Your task to perform on an android device: set default search engine in the chrome app Image 0: 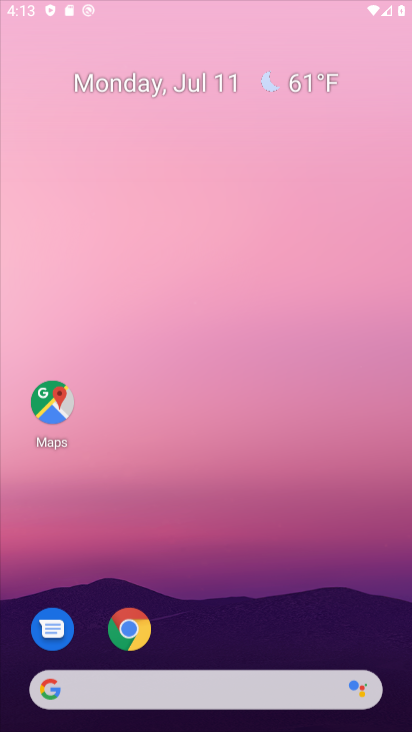
Step 0: click (344, 14)
Your task to perform on an android device: set default search engine in the chrome app Image 1: 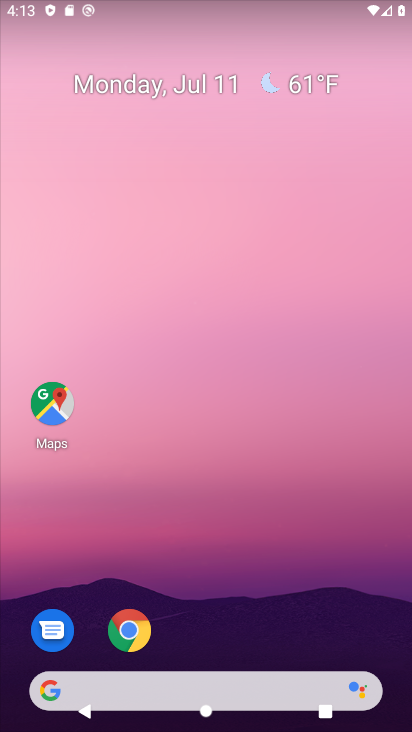
Step 1: drag from (343, 455) to (333, 3)
Your task to perform on an android device: set default search engine in the chrome app Image 2: 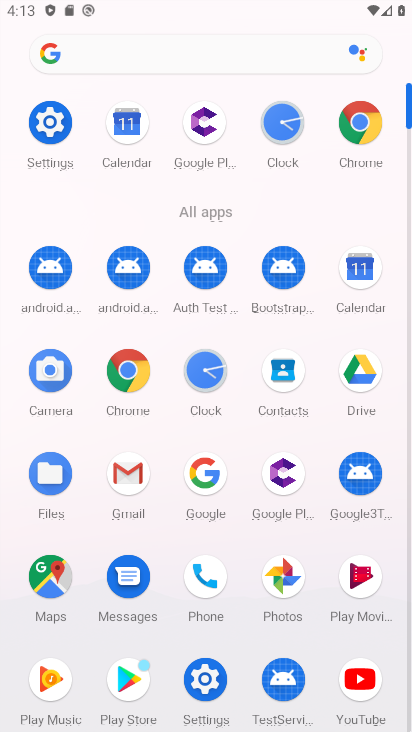
Step 2: click (360, 127)
Your task to perform on an android device: set default search engine in the chrome app Image 3: 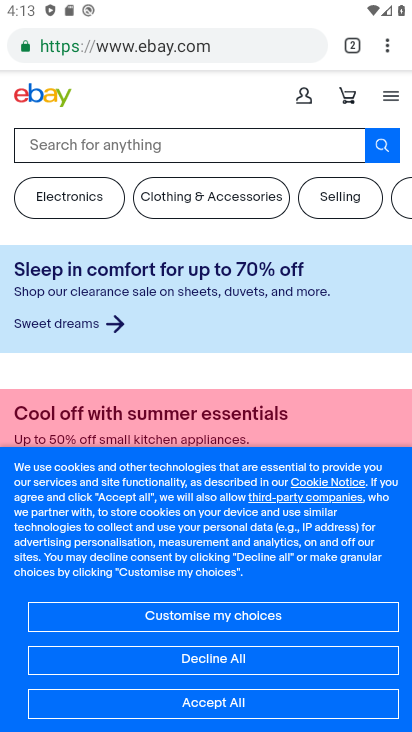
Step 3: drag from (390, 53) to (230, 555)
Your task to perform on an android device: set default search engine in the chrome app Image 4: 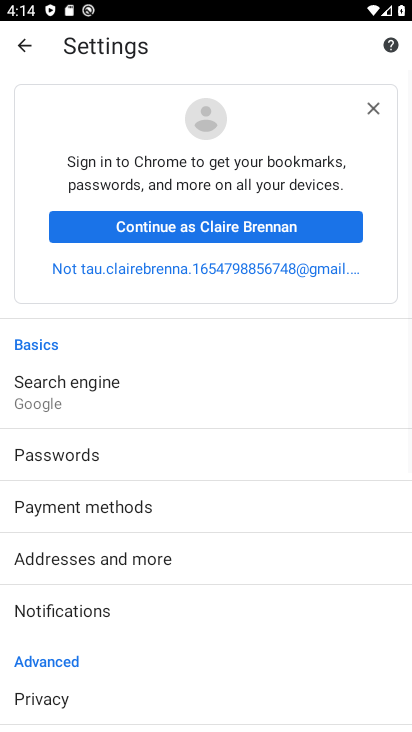
Step 4: click (112, 400)
Your task to perform on an android device: set default search engine in the chrome app Image 5: 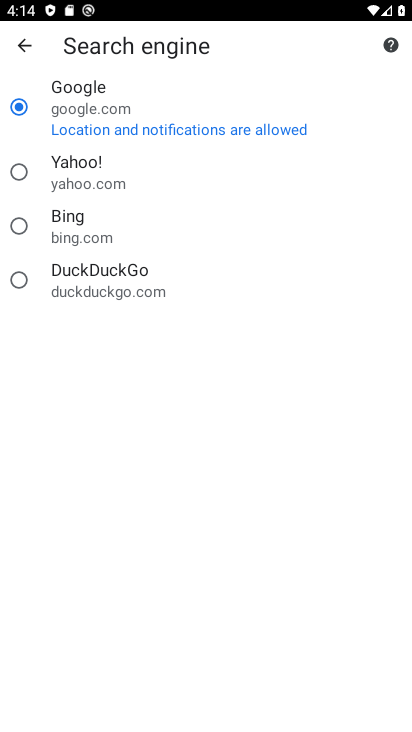
Step 5: task complete